Your task to perform on an android device: refresh tabs in the chrome app Image 0: 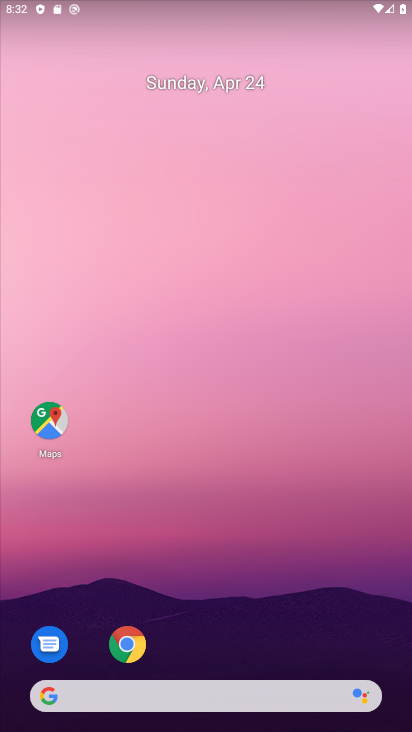
Step 0: click (130, 652)
Your task to perform on an android device: refresh tabs in the chrome app Image 1: 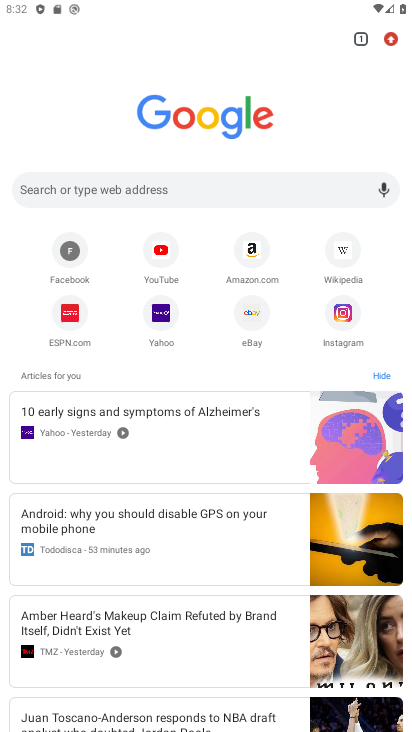
Step 1: click (389, 43)
Your task to perform on an android device: refresh tabs in the chrome app Image 2: 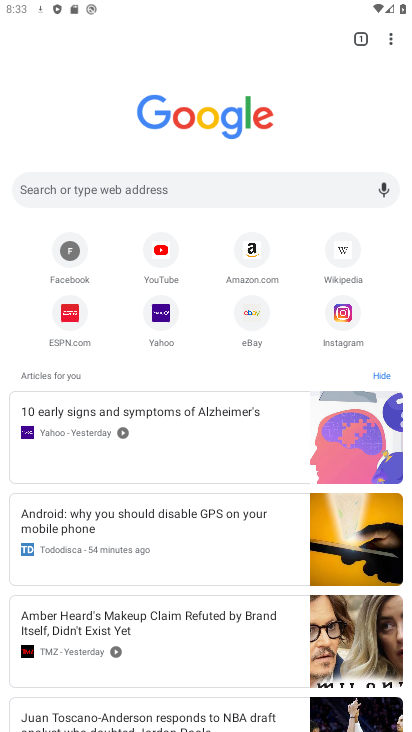
Step 2: task complete